Your task to perform on an android device: change timer sound Image 0: 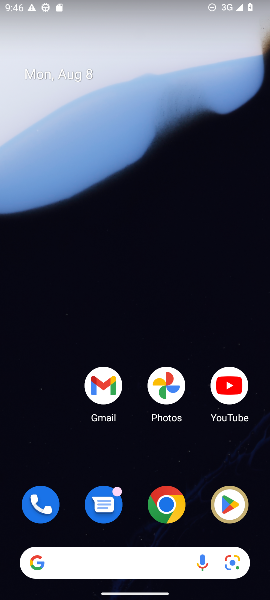
Step 0: drag from (154, 382) to (174, 88)
Your task to perform on an android device: change timer sound Image 1: 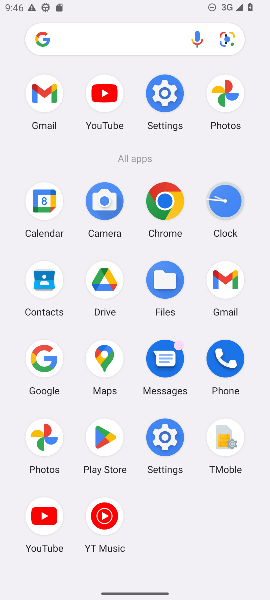
Step 1: click (225, 203)
Your task to perform on an android device: change timer sound Image 2: 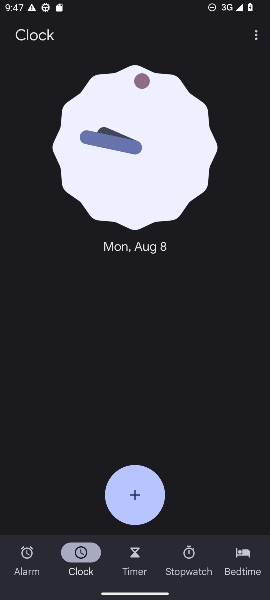
Step 2: click (257, 27)
Your task to perform on an android device: change timer sound Image 3: 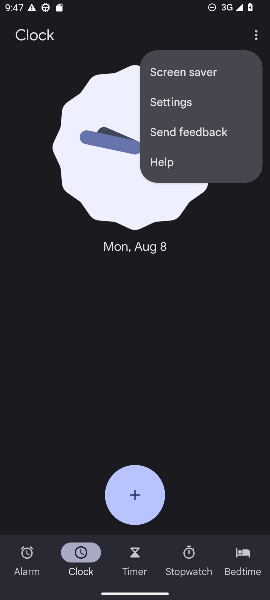
Step 3: click (176, 107)
Your task to perform on an android device: change timer sound Image 4: 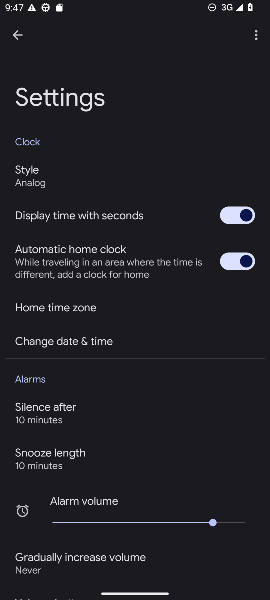
Step 4: drag from (80, 484) to (107, 322)
Your task to perform on an android device: change timer sound Image 5: 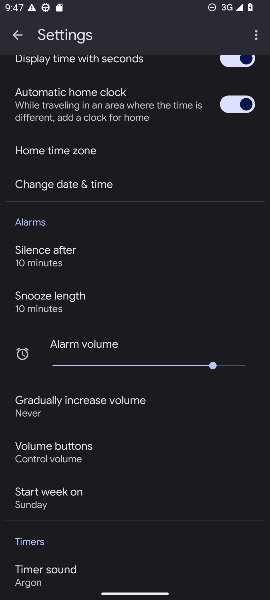
Step 5: drag from (51, 543) to (66, 423)
Your task to perform on an android device: change timer sound Image 6: 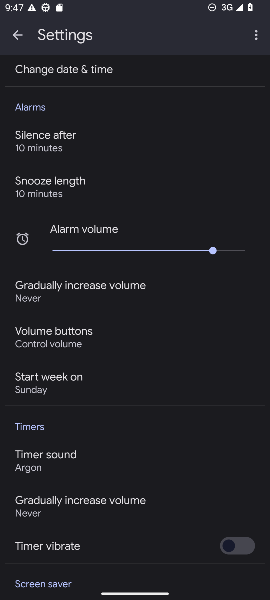
Step 6: click (49, 457)
Your task to perform on an android device: change timer sound Image 7: 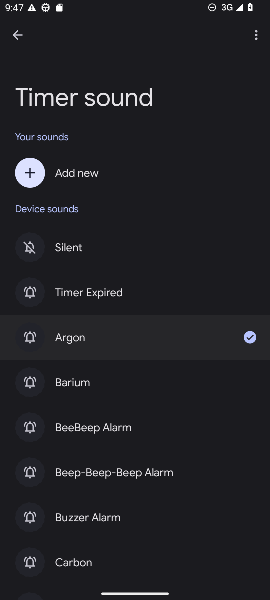
Step 7: click (87, 392)
Your task to perform on an android device: change timer sound Image 8: 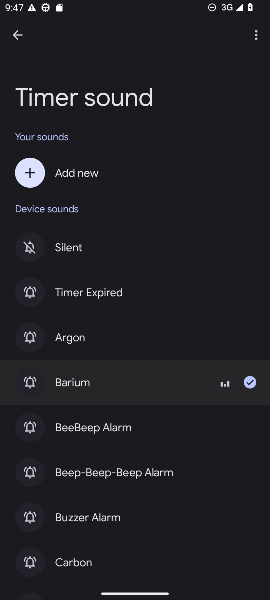
Step 8: task complete